Your task to perform on an android device: change the clock display to digital Image 0: 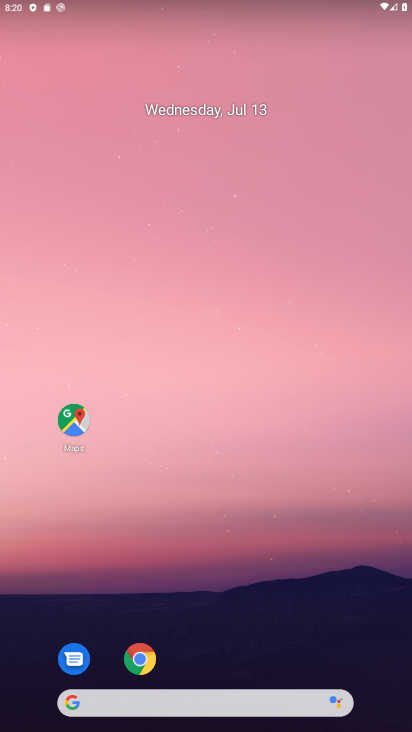
Step 0: press home button
Your task to perform on an android device: change the clock display to digital Image 1: 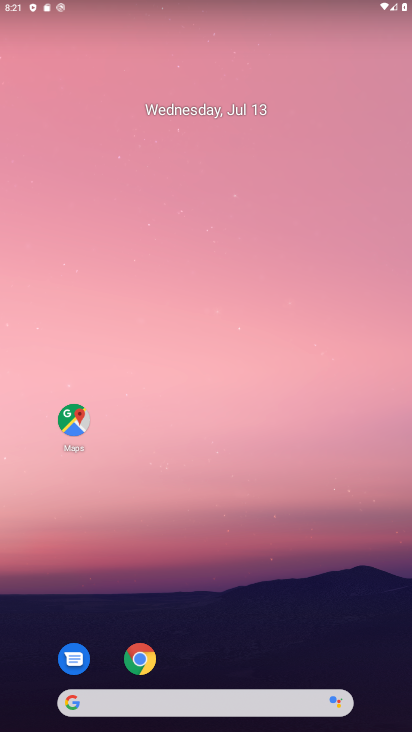
Step 1: drag from (11, 686) to (258, 91)
Your task to perform on an android device: change the clock display to digital Image 2: 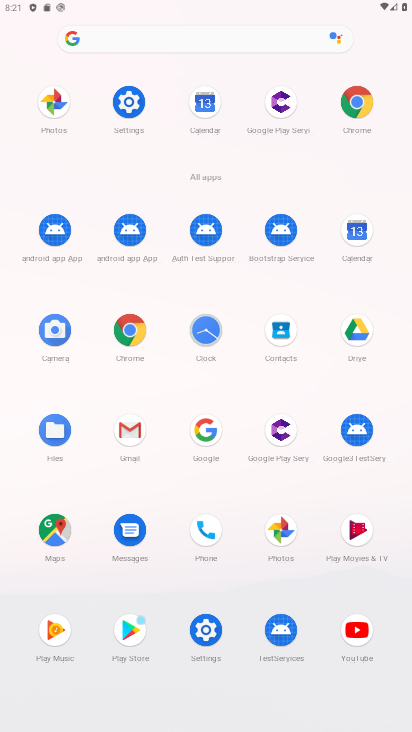
Step 2: click (210, 337)
Your task to perform on an android device: change the clock display to digital Image 3: 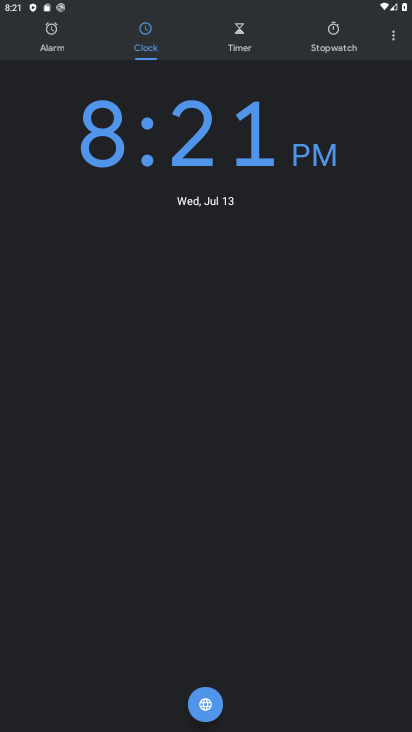
Step 3: click (396, 35)
Your task to perform on an android device: change the clock display to digital Image 4: 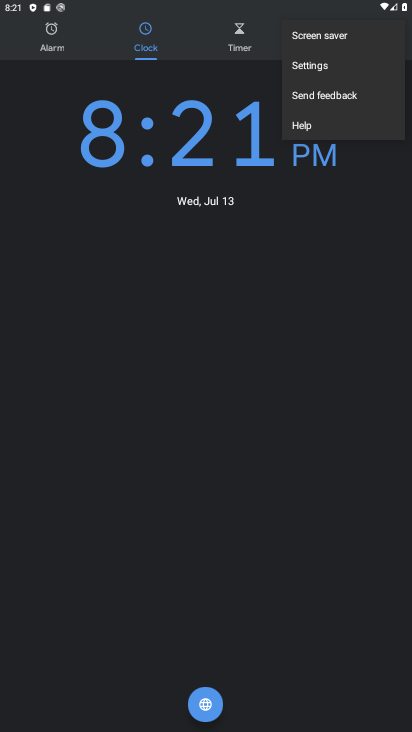
Step 4: click (323, 68)
Your task to perform on an android device: change the clock display to digital Image 5: 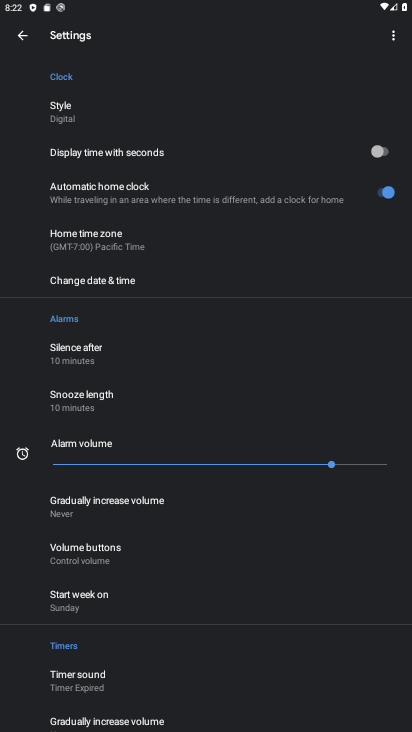
Step 5: task complete